Your task to perform on an android device: What's a good restaurant in Las Vegas? Image 0: 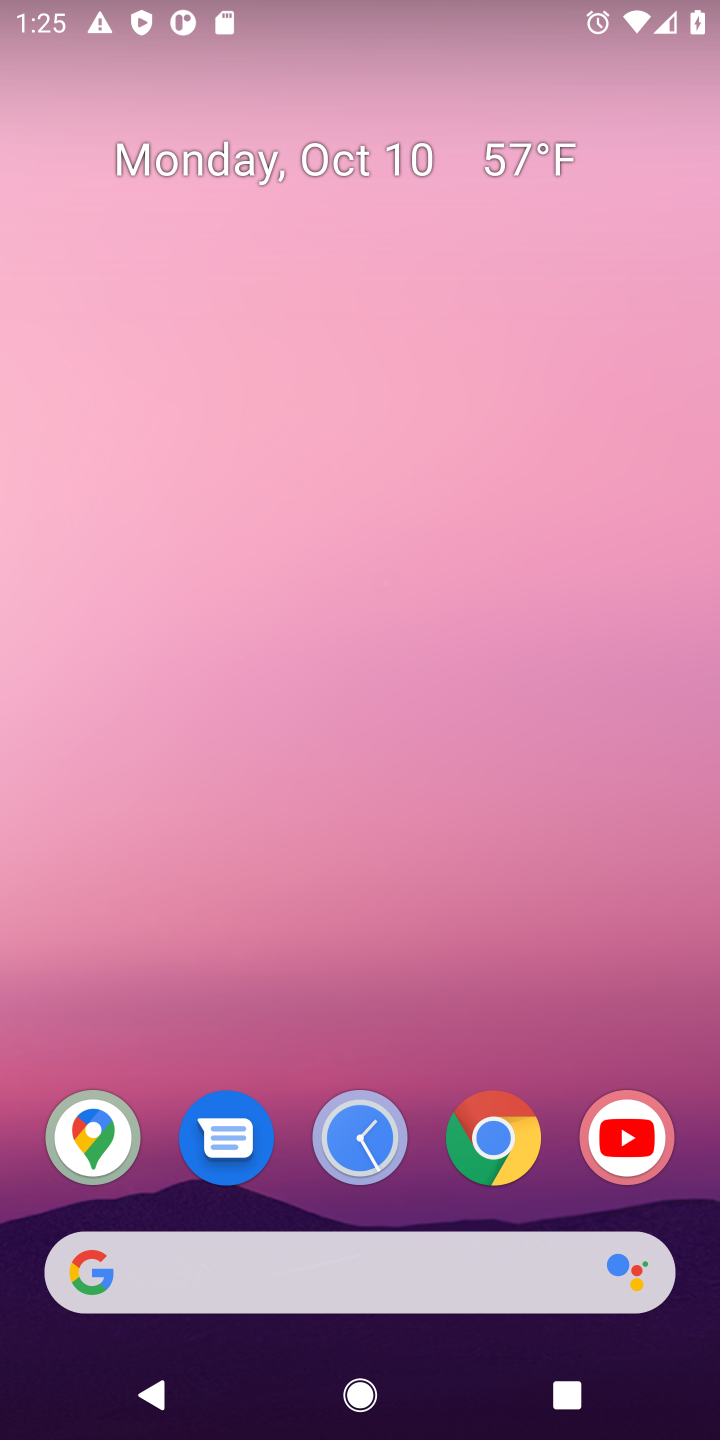
Step 0: click (352, 1282)
Your task to perform on an android device: What's a good restaurant in Las Vegas? Image 1: 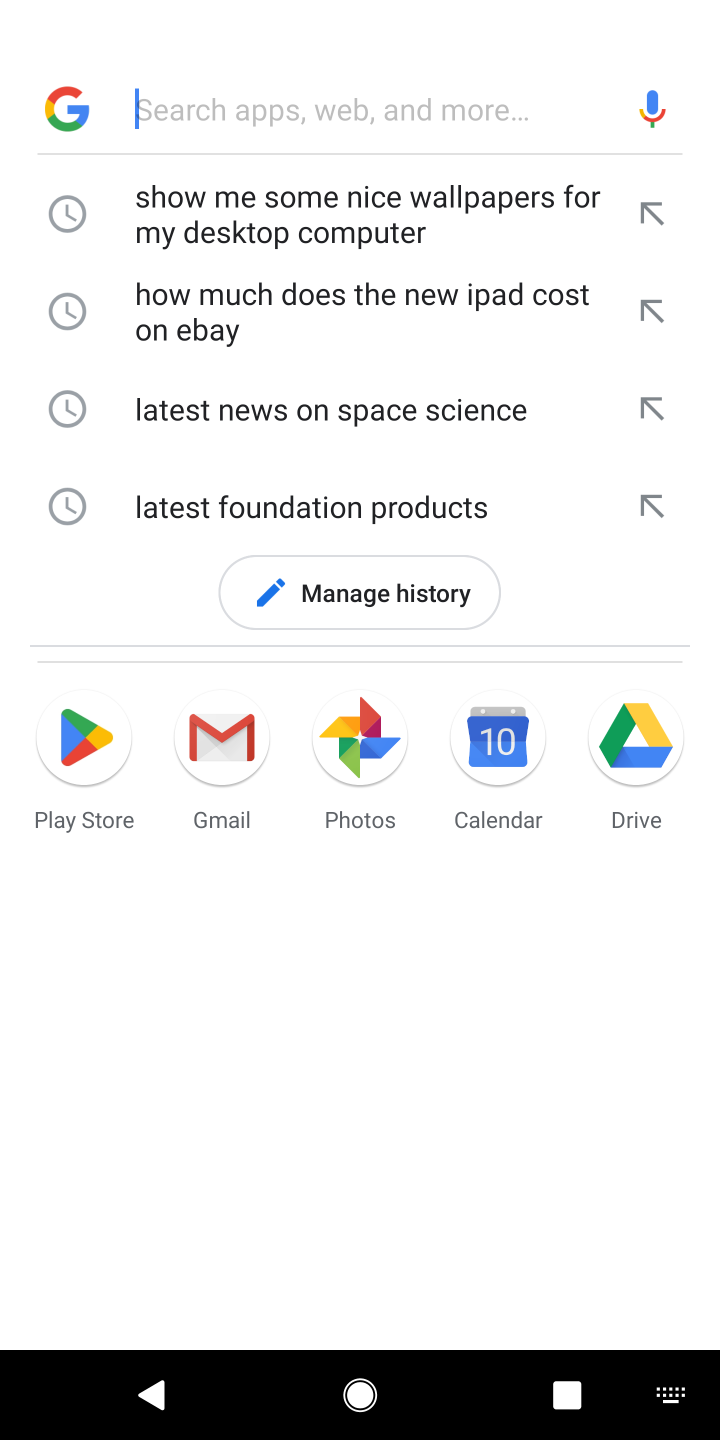
Step 1: type "good restaurants in las vegas?"
Your task to perform on an android device: What's a good restaurant in Las Vegas? Image 2: 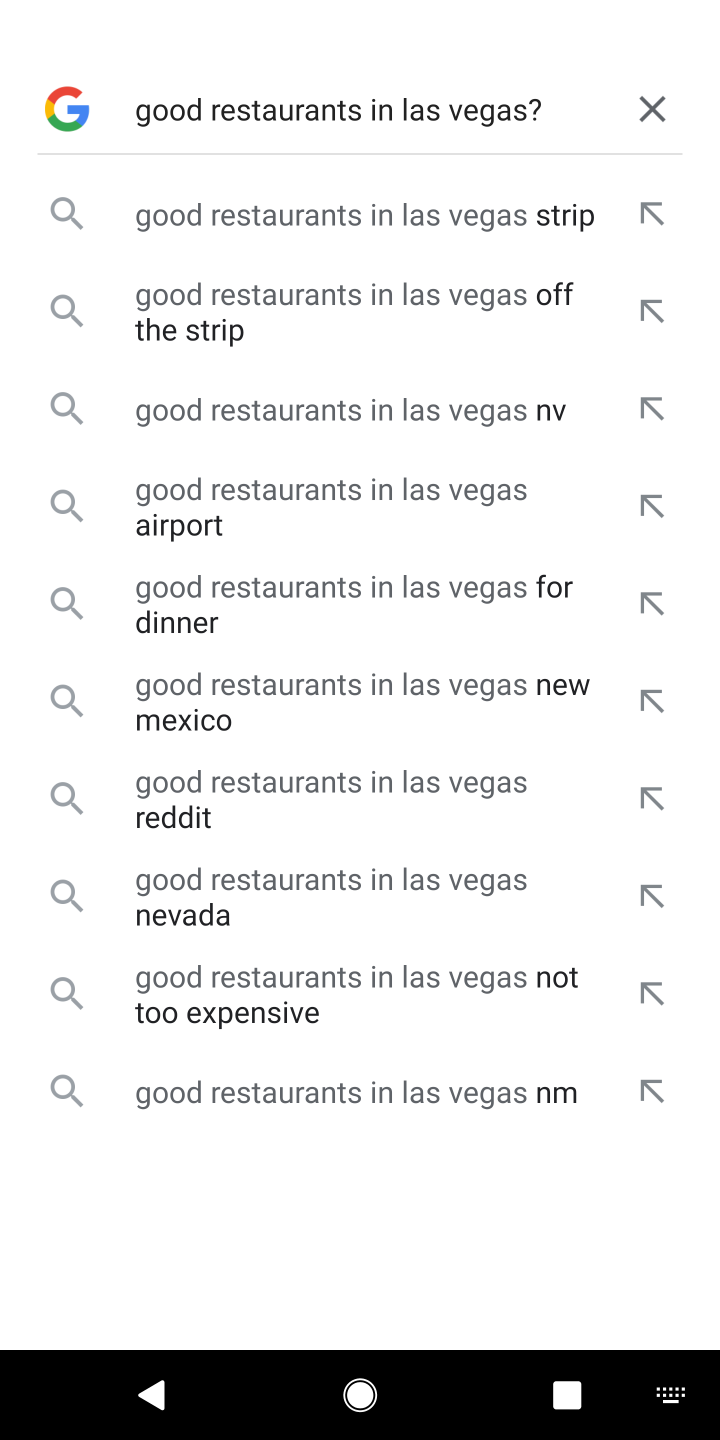
Step 2: click (353, 400)
Your task to perform on an android device: What's a good restaurant in Las Vegas? Image 3: 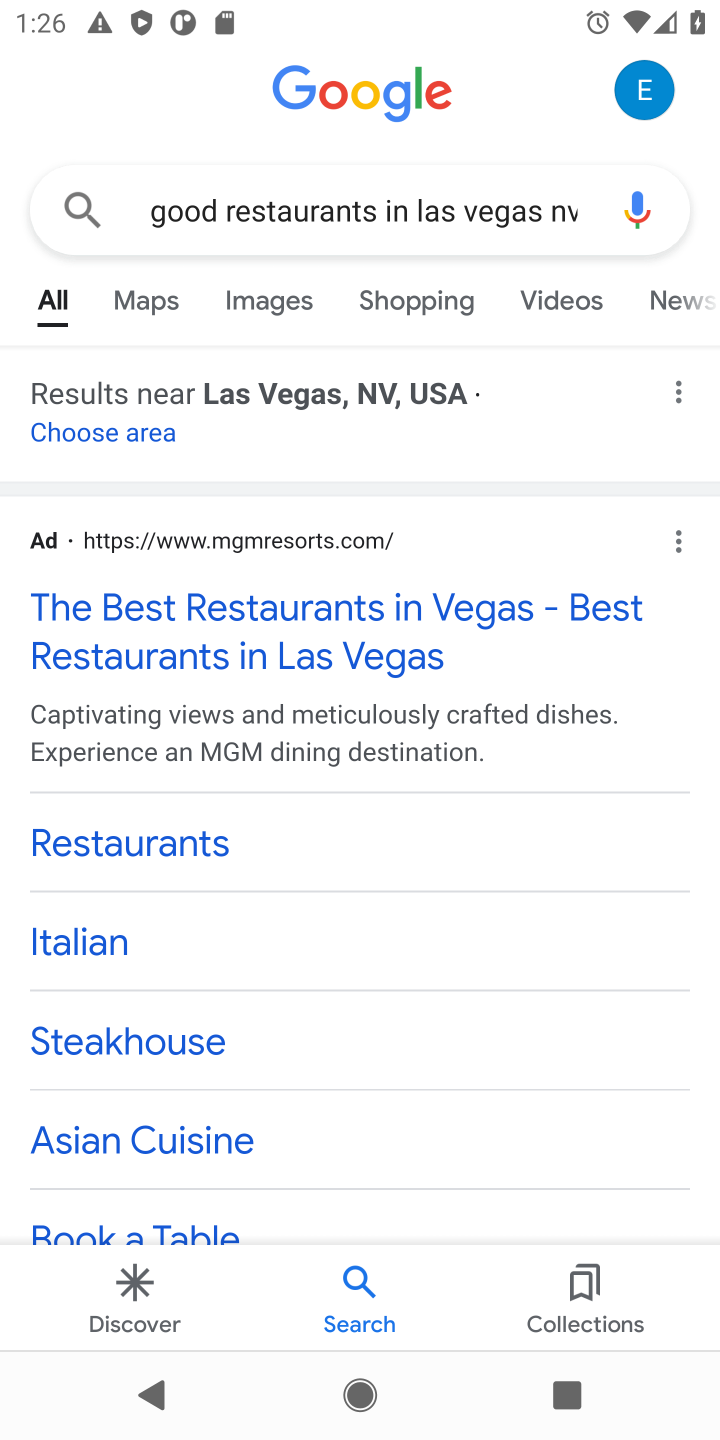
Step 3: click (253, 638)
Your task to perform on an android device: What's a good restaurant in Las Vegas? Image 4: 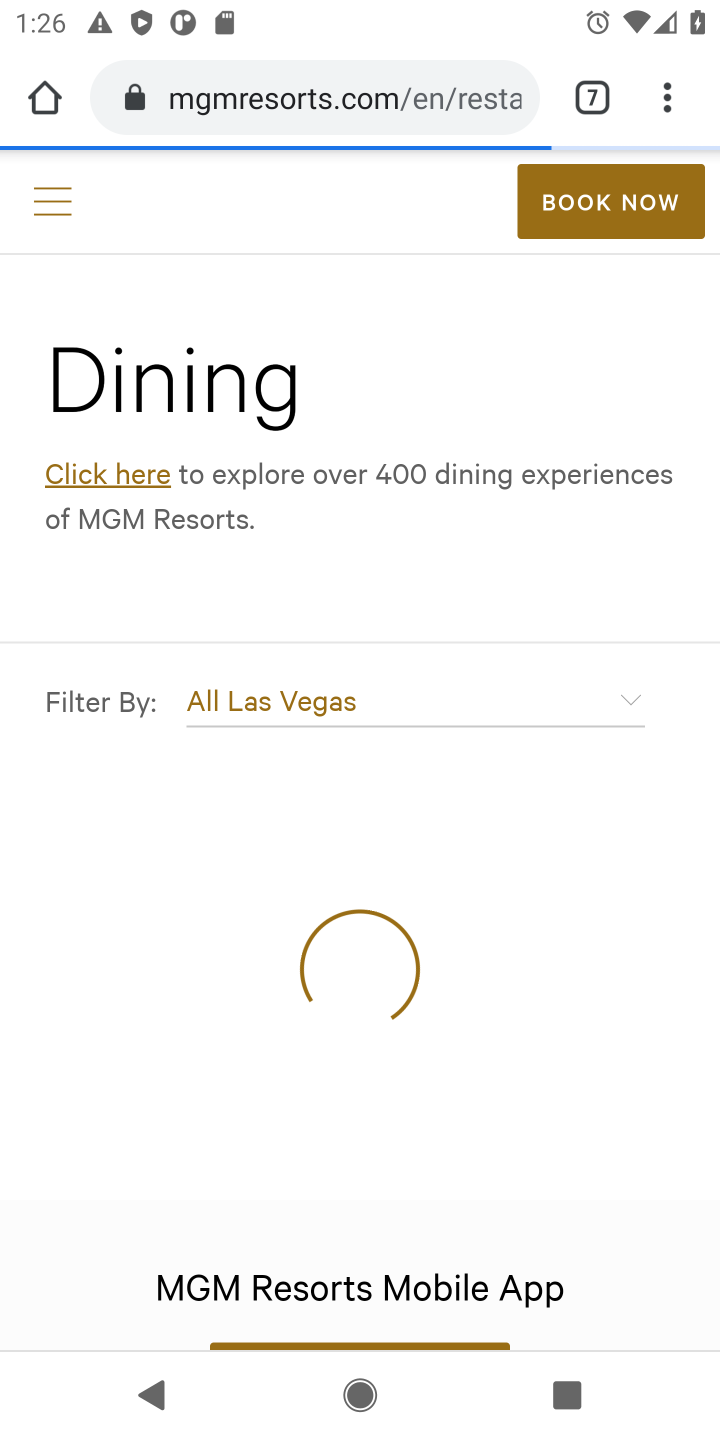
Step 4: task complete